Your task to perform on an android device: turn off location Image 0: 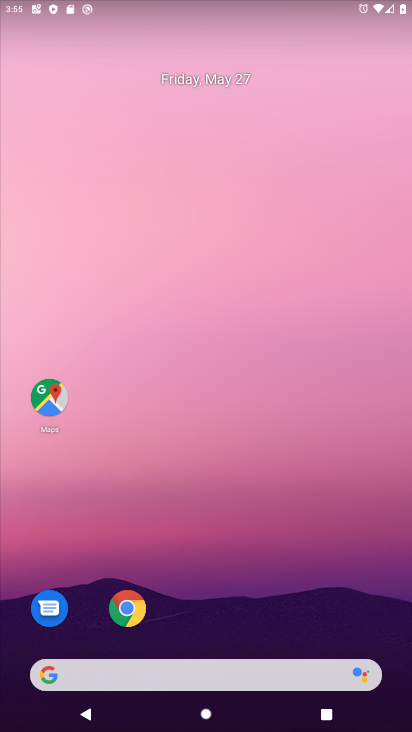
Step 0: drag from (232, 652) to (232, 343)
Your task to perform on an android device: turn off location Image 1: 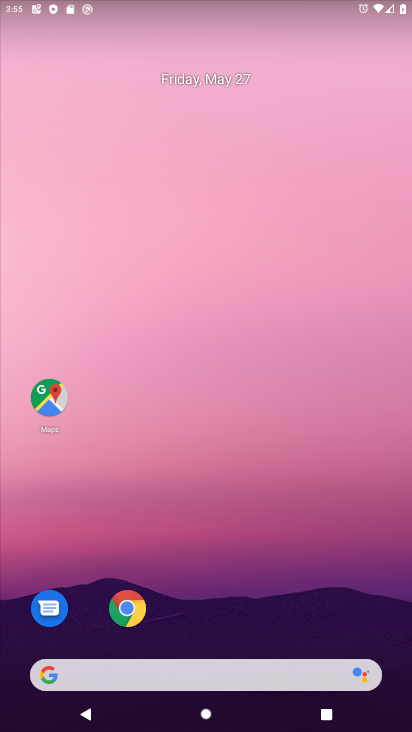
Step 1: drag from (286, 653) to (298, 209)
Your task to perform on an android device: turn off location Image 2: 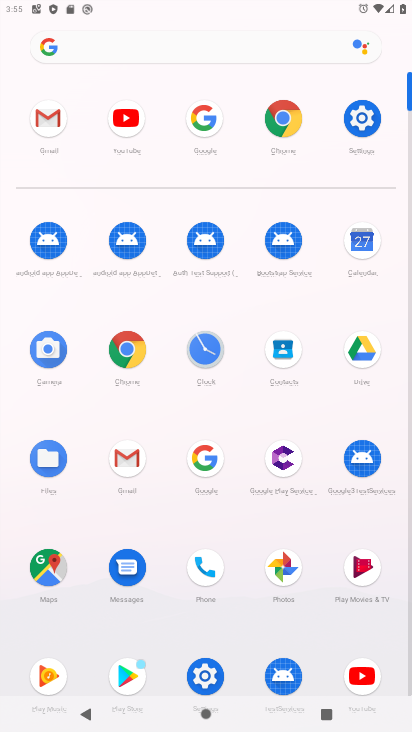
Step 2: click (371, 109)
Your task to perform on an android device: turn off location Image 3: 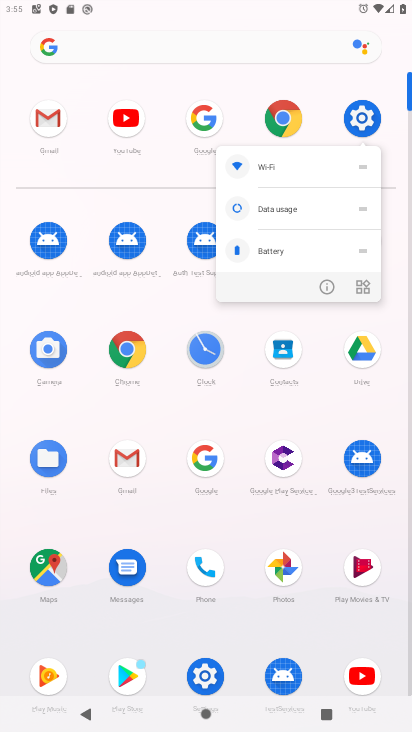
Step 3: click (365, 120)
Your task to perform on an android device: turn off location Image 4: 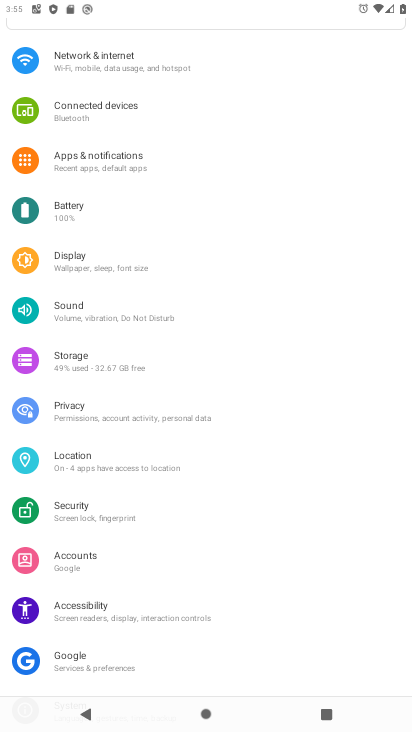
Step 4: click (105, 454)
Your task to perform on an android device: turn off location Image 5: 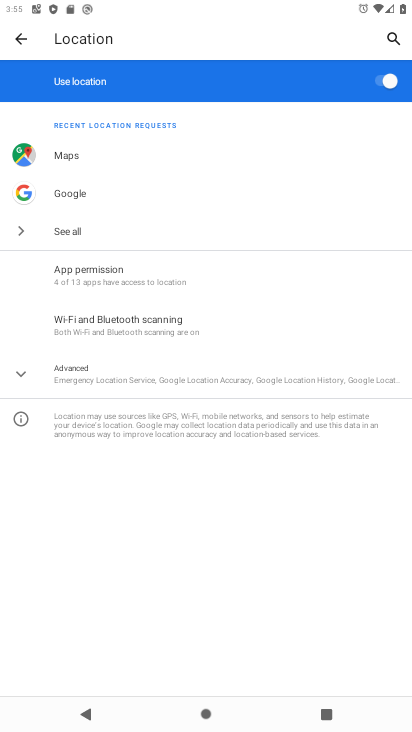
Step 5: click (381, 76)
Your task to perform on an android device: turn off location Image 6: 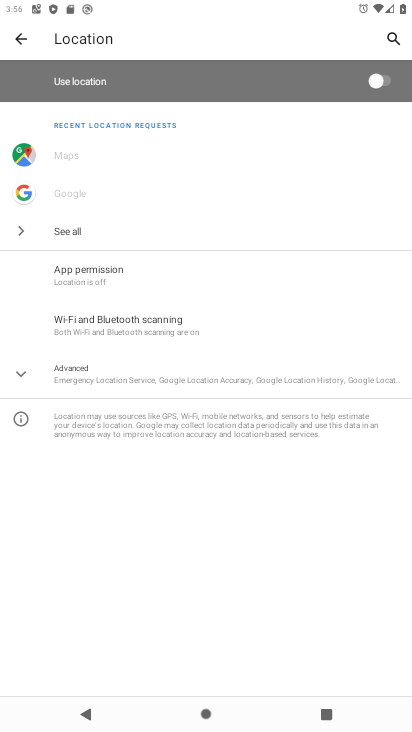
Step 6: task complete